Your task to perform on an android device: Install the Reddit app Image 0: 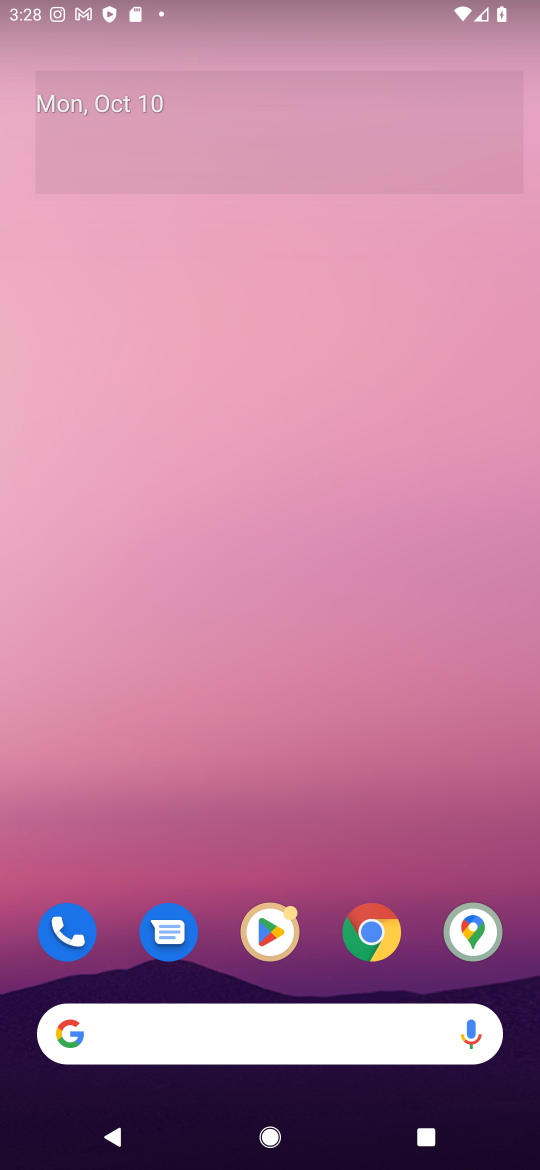
Step 0: drag from (457, 825) to (480, 267)
Your task to perform on an android device: Install the Reddit app Image 1: 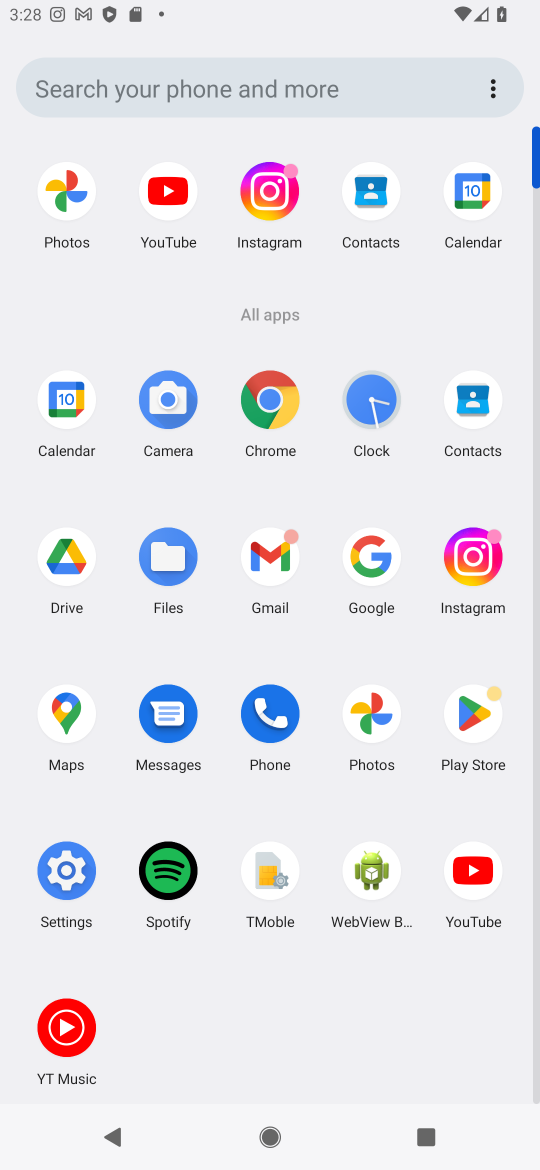
Step 1: click (468, 717)
Your task to perform on an android device: Install the Reddit app Image 2: 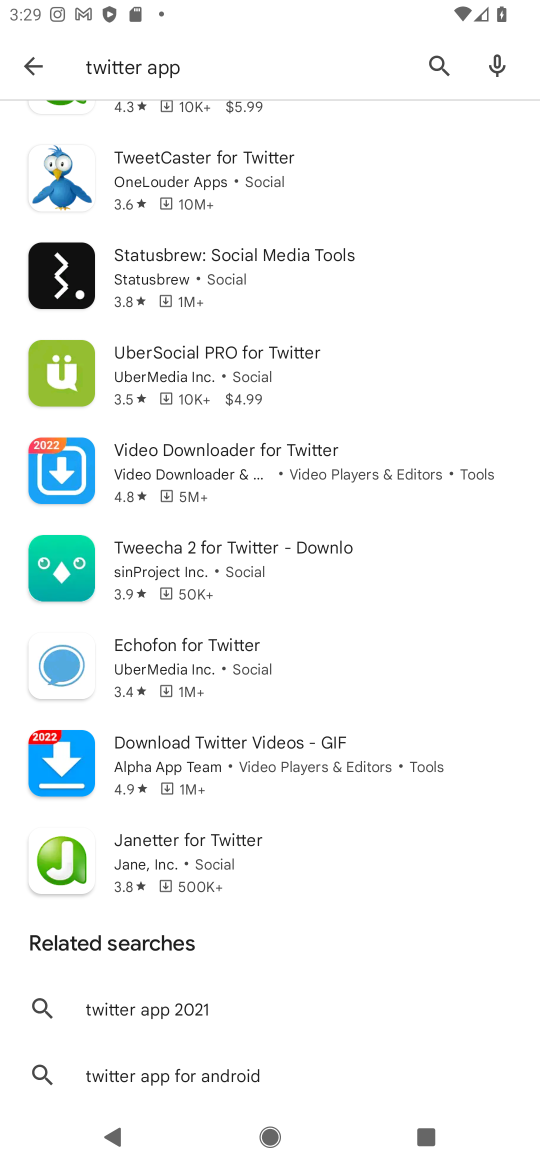
Step 2: press back button
Your task to perform on an android device: Install the Reddit app Image 3: 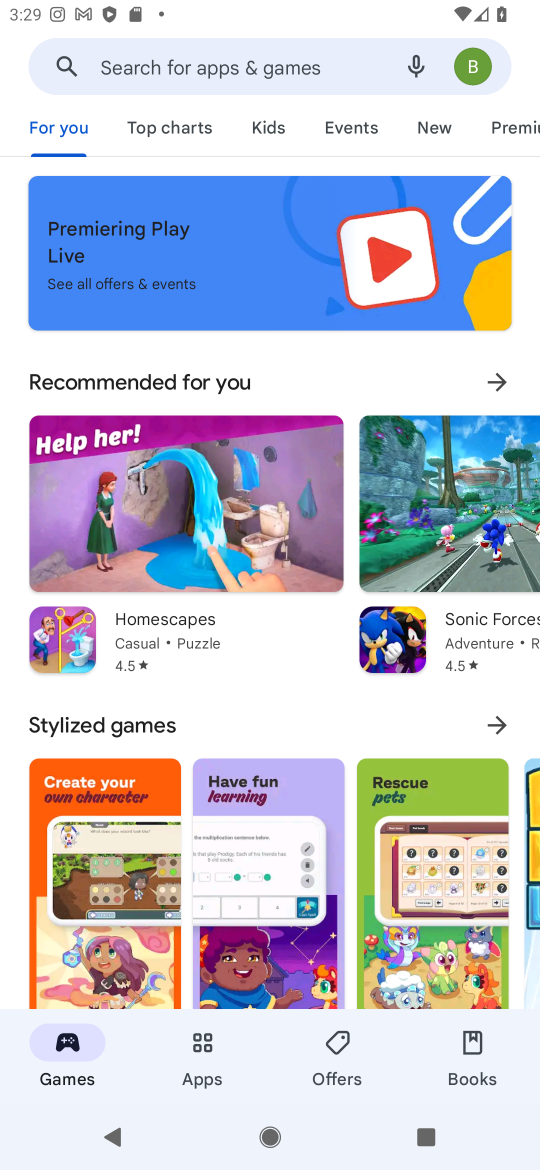
Step 3: click (234, 60)
Your task to perform on an android device: Install the Reddit app Image 4: 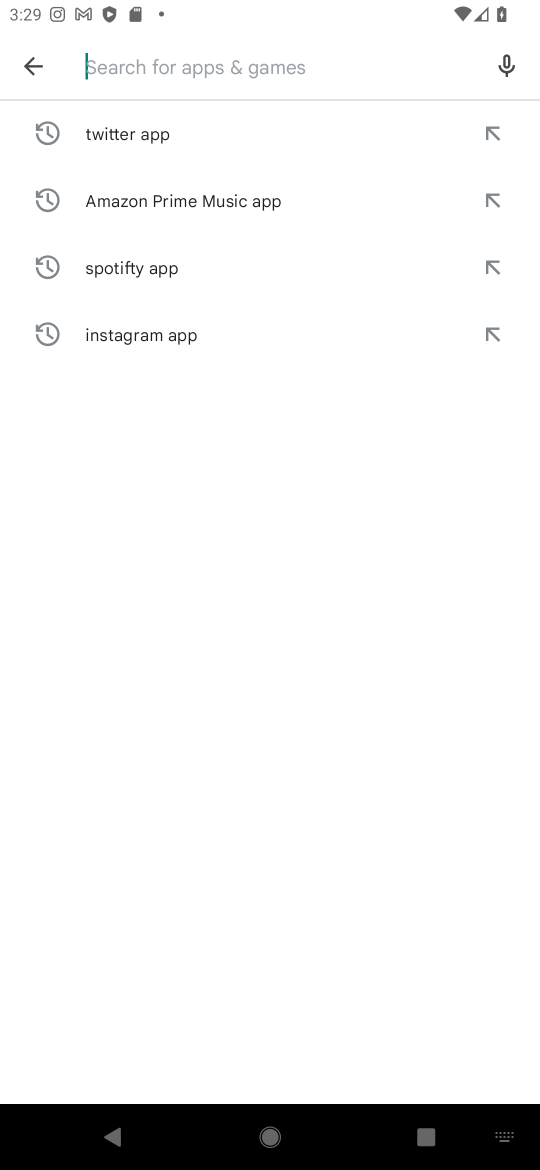
Step 4: type "reddit app"
Your task to perform on an android device: Install the Reddit app Image 5: 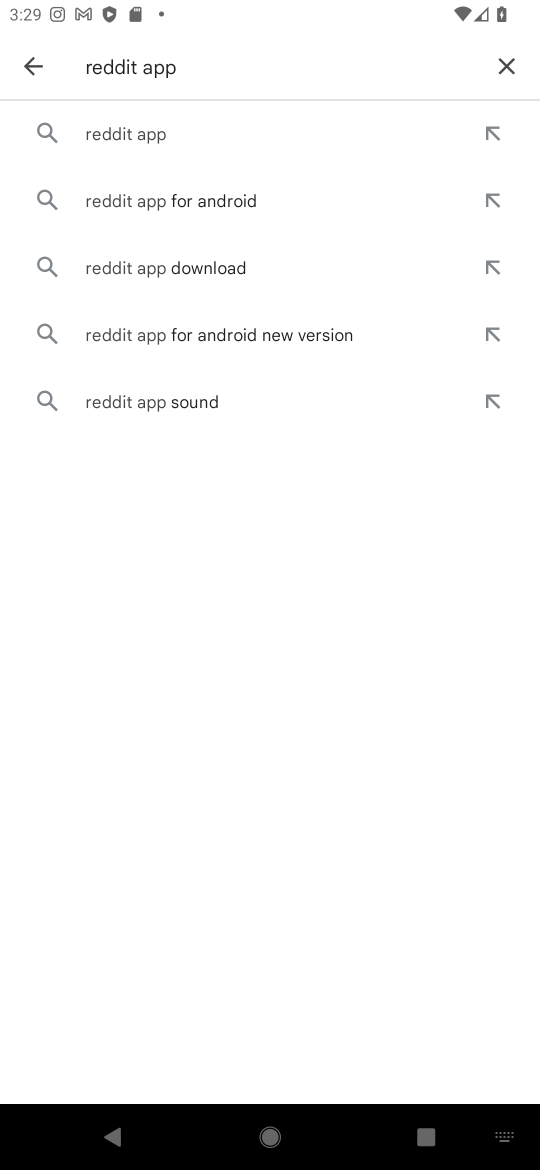
Step 5: click (122, 117)
Your task to perform on an android device: Install the Reddit app Image 6: 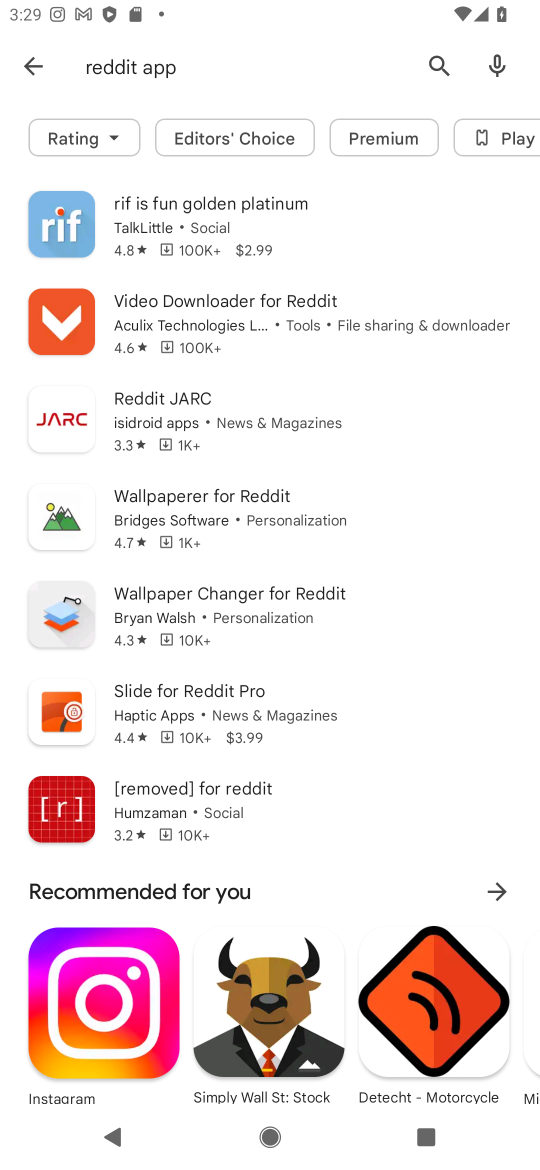
Step 6: task complete